Your task to perform on an android device: Do I have any events tomorrow? Image 0: 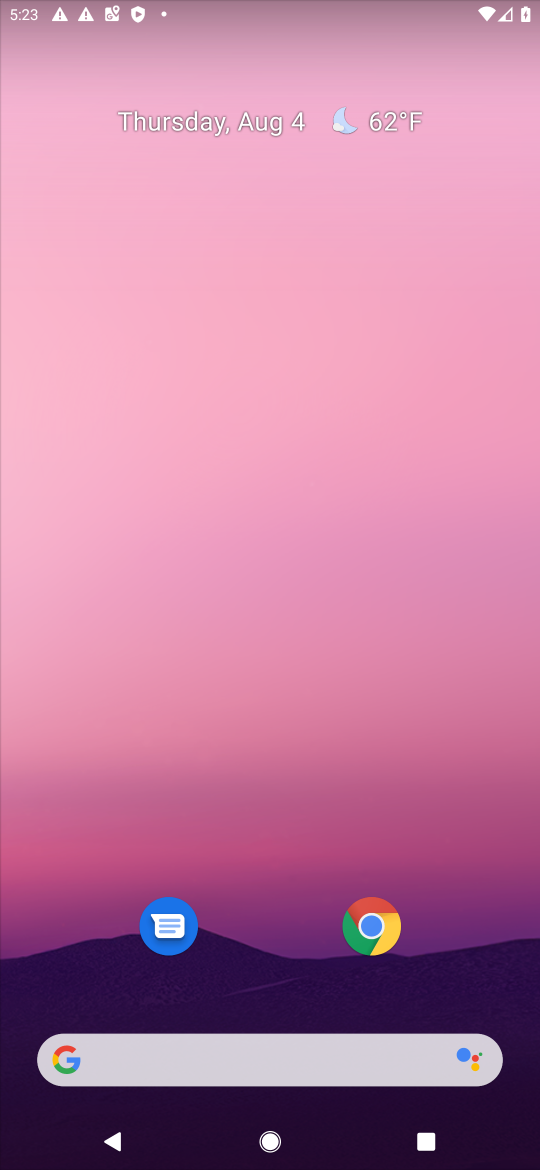
Step 0: press home button
Your task to perform on an android device: Do I have any events tomorrow? Image 1: 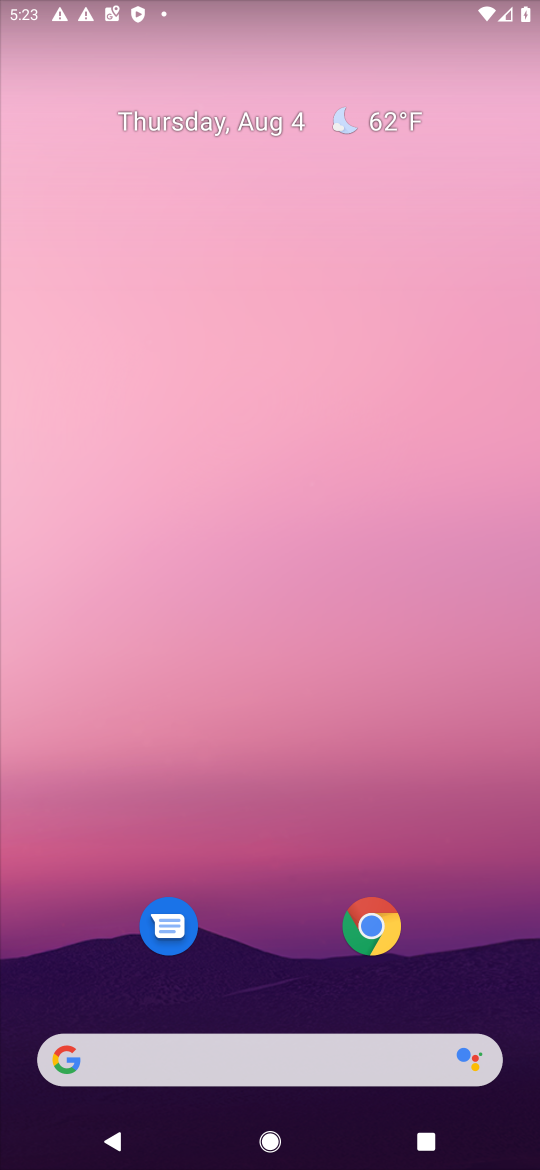
Step 1: press home button
Your task to perform on an android device: Do I have any events tomorrow? Image 2: 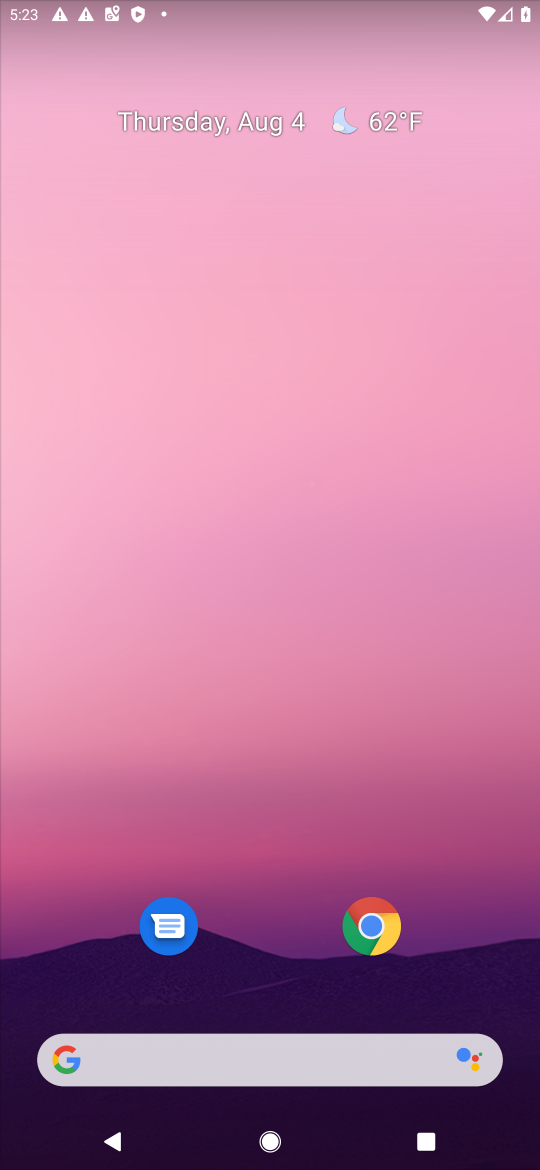
Step 2: drag from (262, 912) to (291, 2)
Your task to perform on an android device: Do I have any events tomorrow? Image 3: 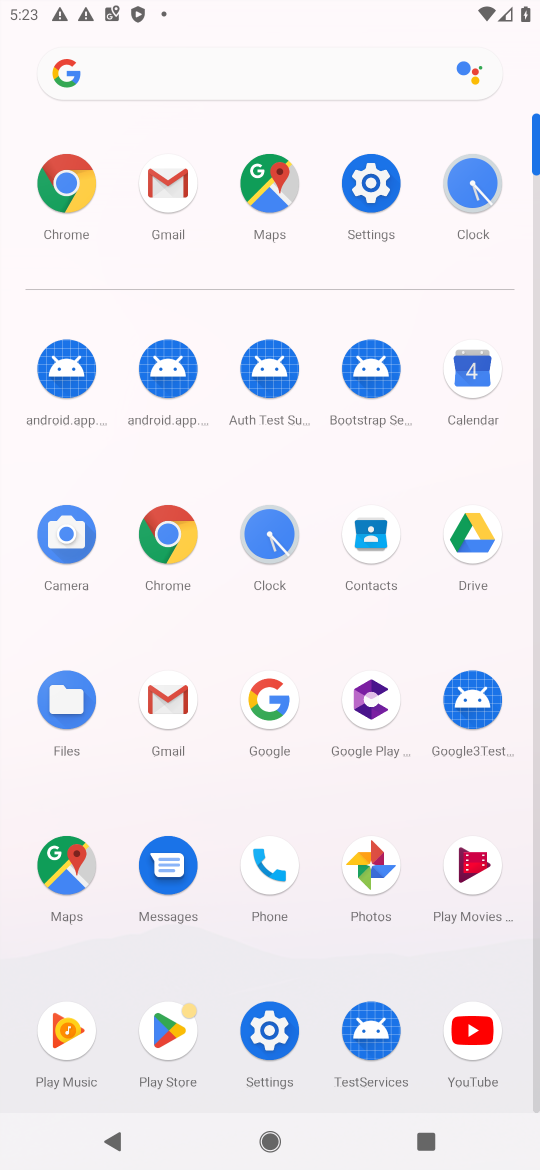
Step 3: click (483, 379)
Your task to perform on an android device: Do I have any events tomorrow? Image 4: 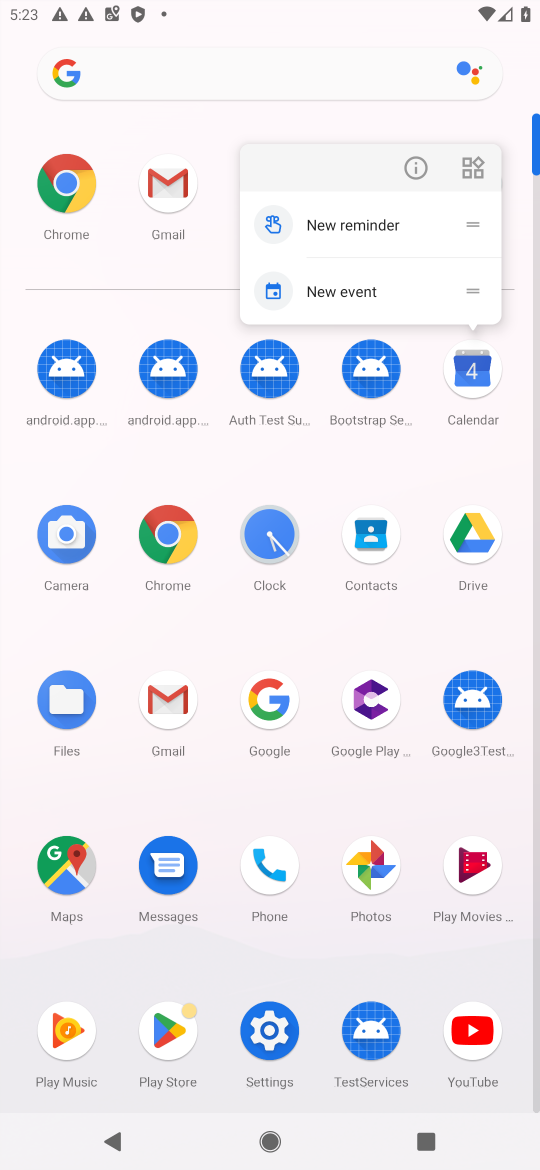
Step 4: click (470, 381)
Your task to perform on an android device: Do I have any events tomorrow? Image 5: 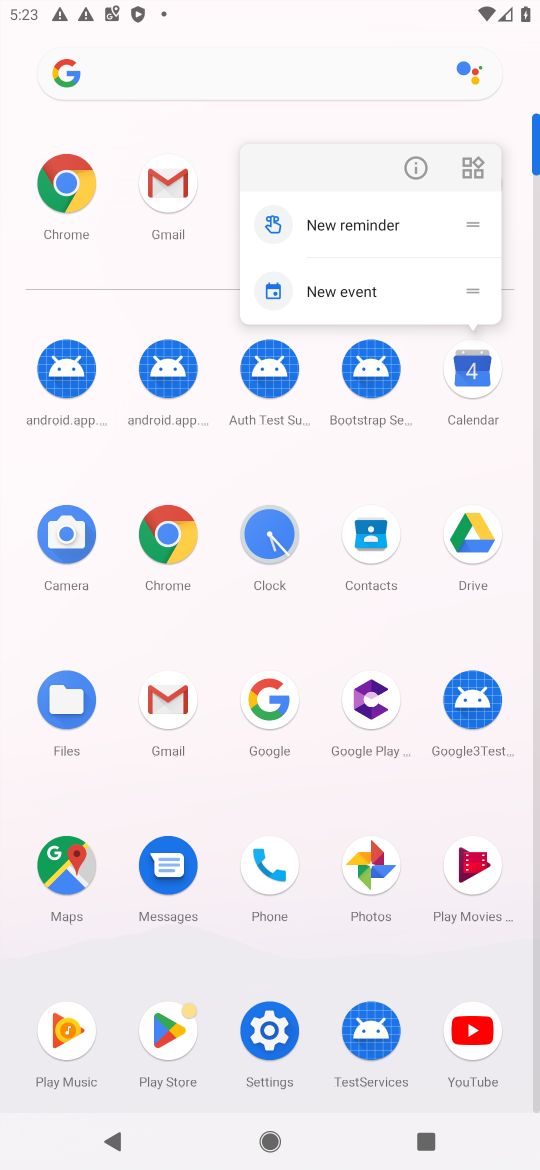
Step 5: click (470, 381)
Your task to perform on an android device: Do I have any events tomorrow? Image 6: 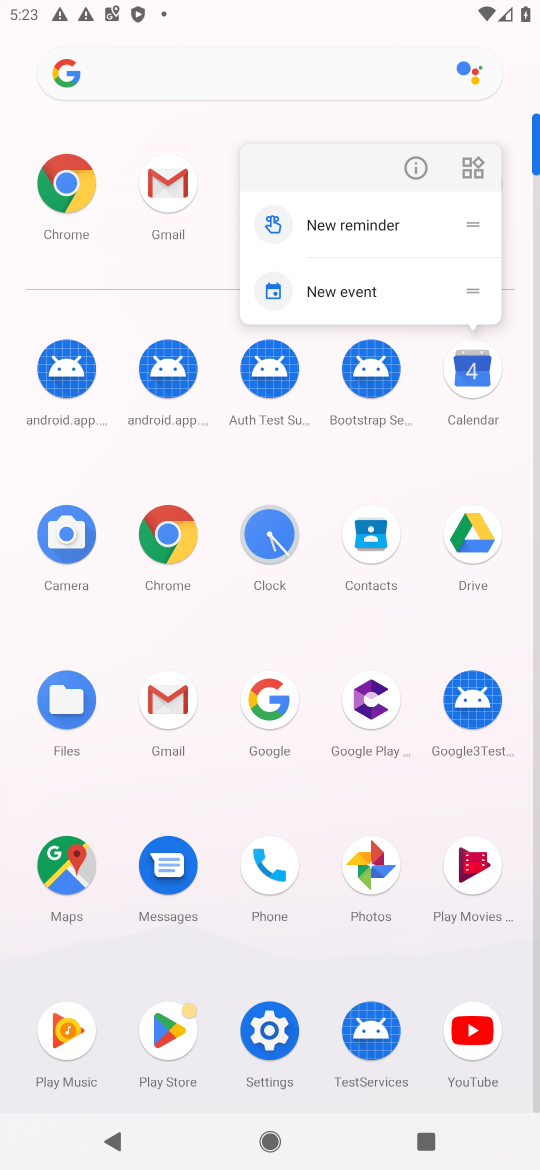
Step 6: click (470, 381)
Your task to perform on an android device: Do I have any events tomorrow? Image 7: 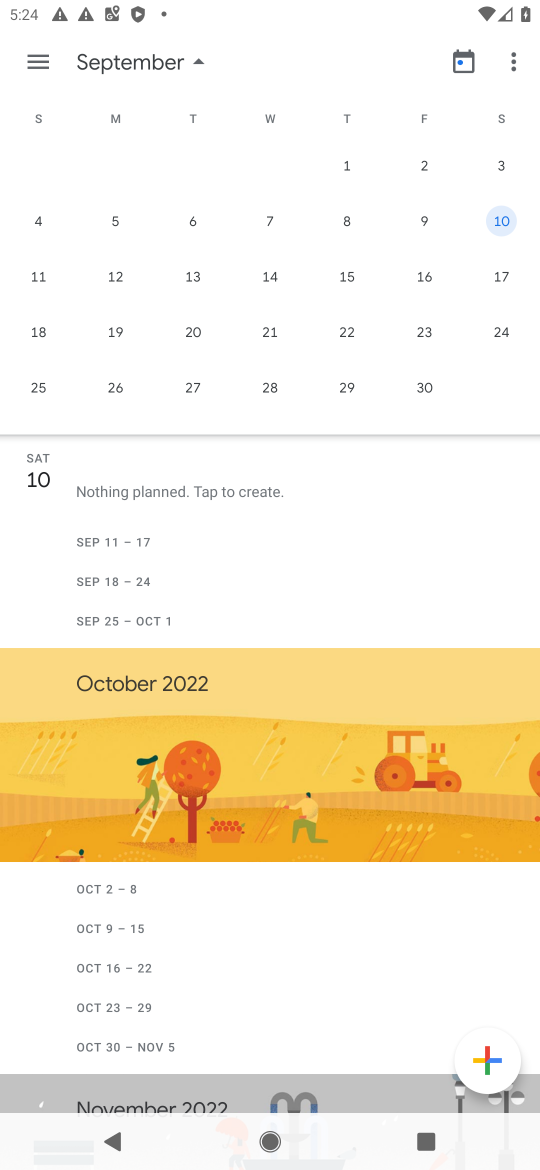
Step 7: drag from (58, 203) to (537, 244)
Your task to perform on an android device: Do I have any events tomorrow? Image 8: 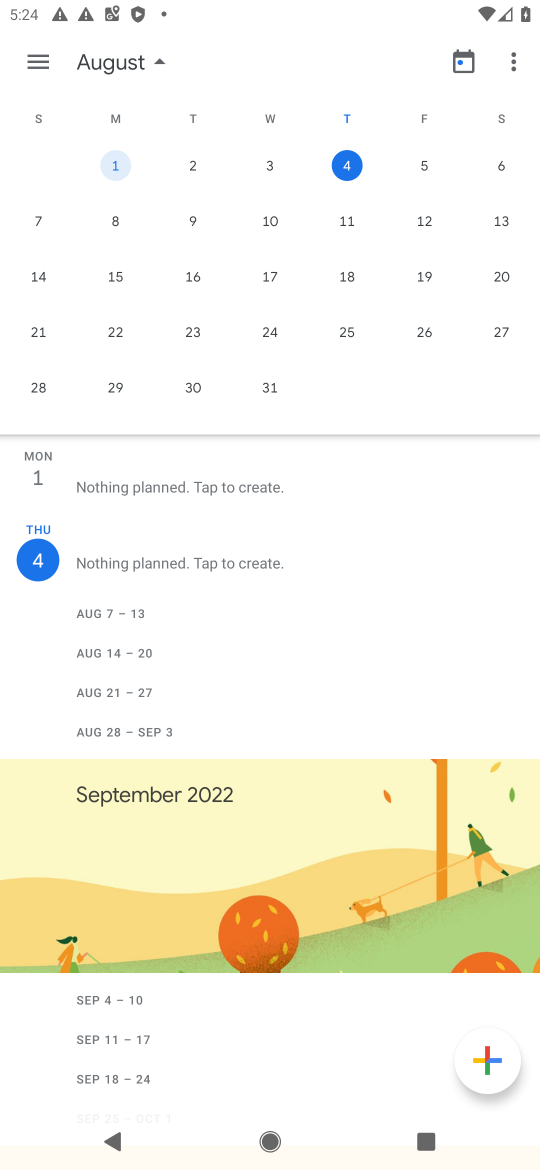
Step 8: click (415, 173)
Your task to perform on an android device: Do I have any events tomorrow? Image 9: 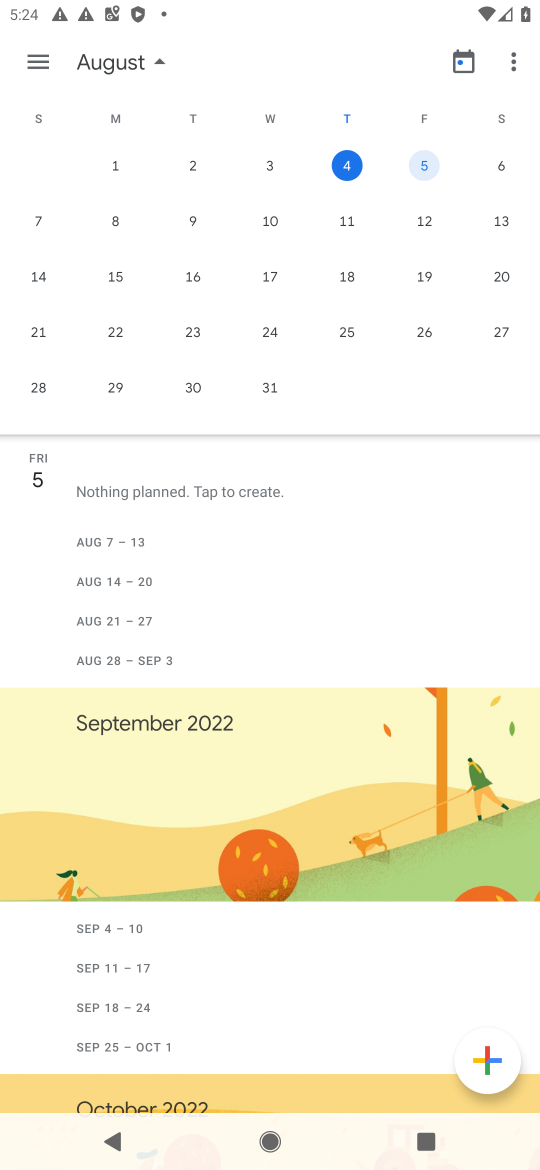
Step 9: task complete